Your task to perform on an android device: Is it going to rain today? Image 0: 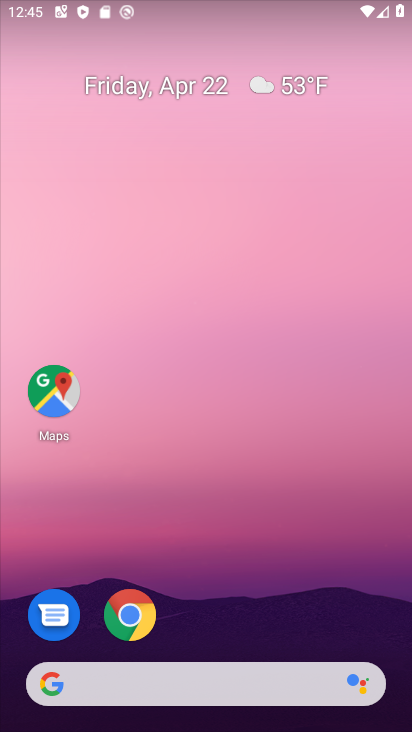
Step 0: click (117, 682)
Your task to perform on an android device: Is it going to rain today? Image 1: 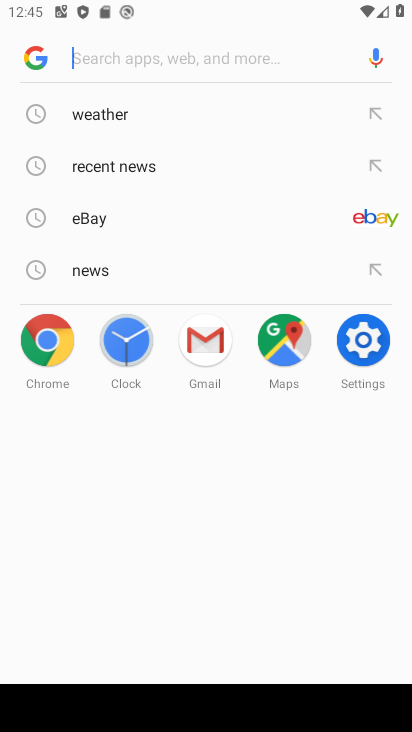
Step 1: type "Is it going to rain today?"
Your task to perform on an android device: Is it going to rain today? Image 2: 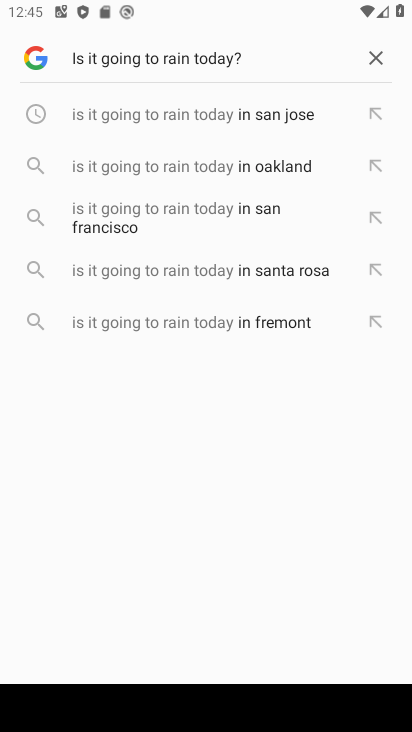
Step 2: click (262, 52)
Your task to perform on an android device: Is it going to rain today? Image 3: 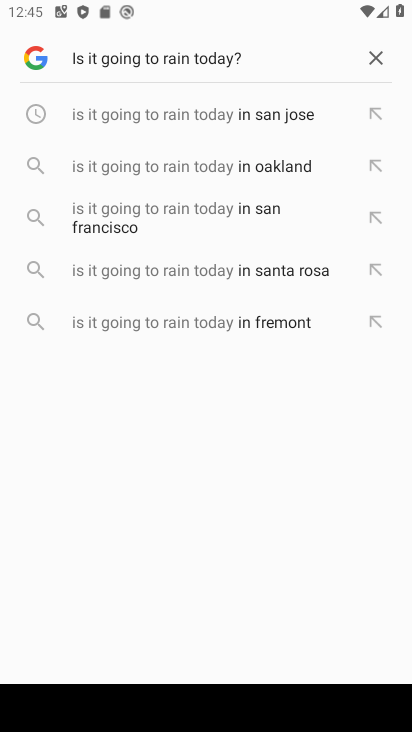
Step 3: click (253, 60)
Your task to perform on an android device: Is it going to rain today? Image 4: 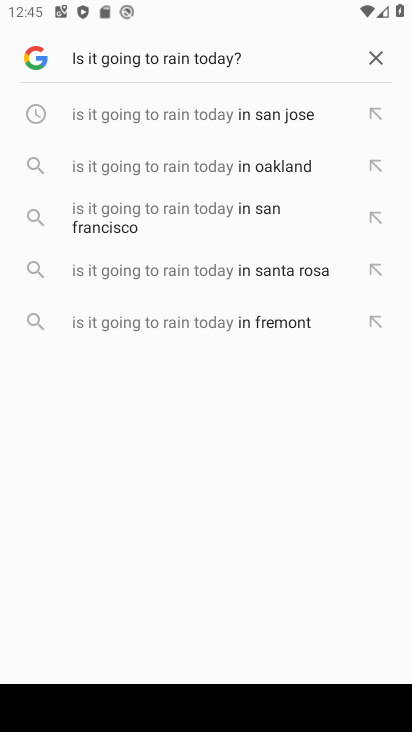
Step 4: click (312, 63)
Your task to perform on an android device: Is it going to rain today? Image 5: 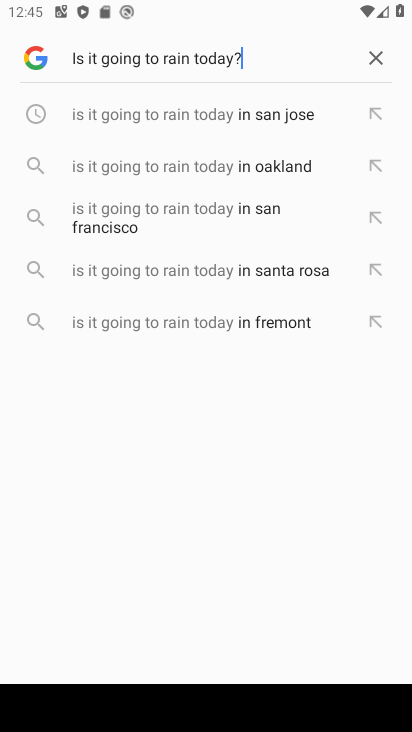
Step 5: click (378, 51)
Your task to perform on an android device: Is it going to rain today? Image 6: 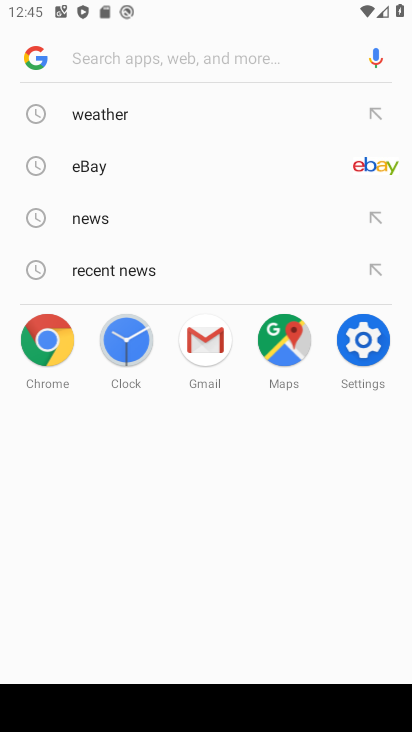
Step 6: type "Is it going to rain today near me"
Your task to perform on an android device: Is it going to rain today? Image 7: 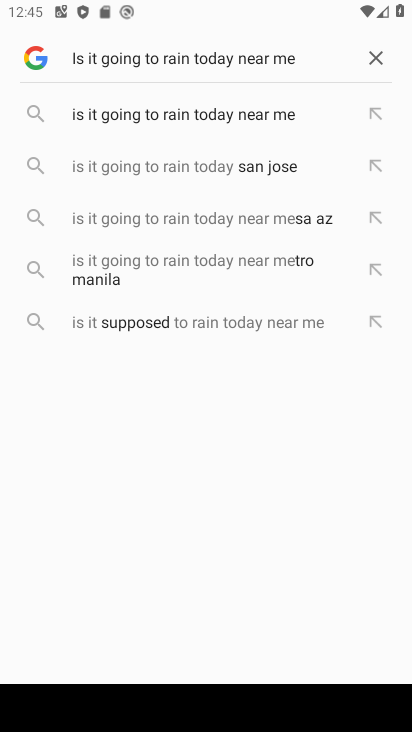
Step 7: click (290, 117)
Your task to perform on an android device: Is it going to rain today? Image 8: 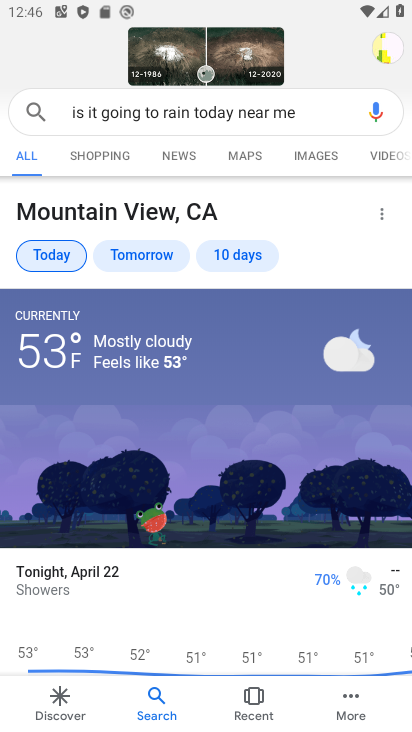
Step 8: task complete